Your task to perform on an android device: turn off priority inbox in the gmail app Image 0: 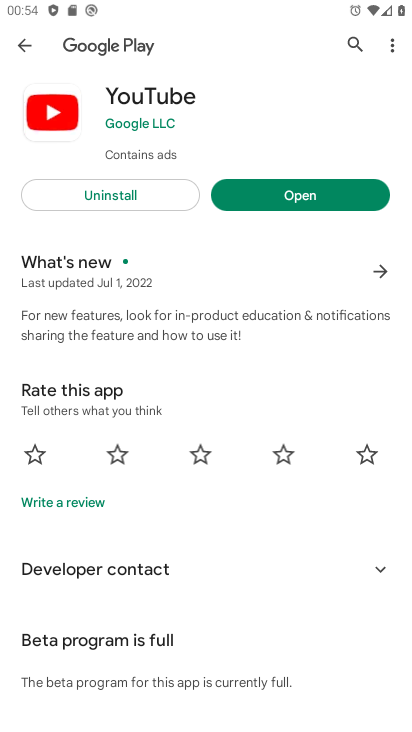
Step 0: press home button
Your task to perform on an android device: turn off priority inbox in the gmail app Image 1: 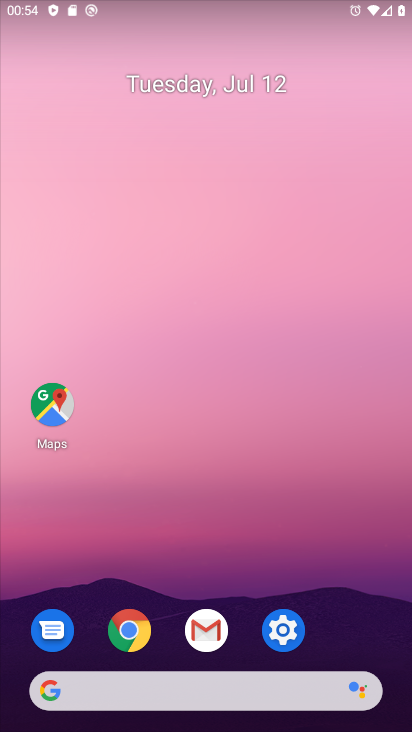
Step 1: click (208, 618)
Your task to perform on an android device: turn off priority inbox in the gmail app Image 2: 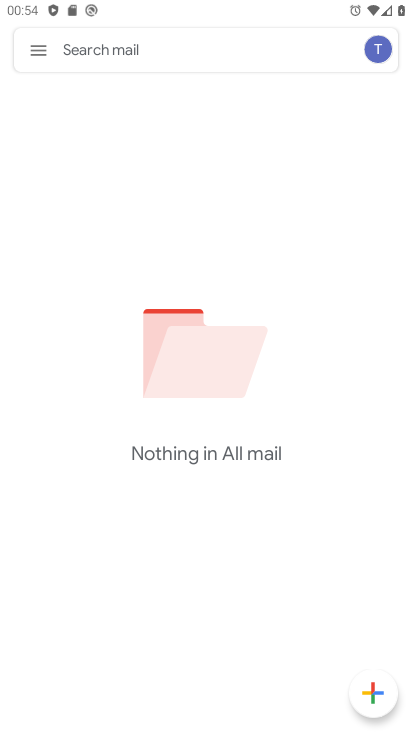
Step 2: click (38, 46)
Your task to perform on an android device: turn off priority inbox in the gmail app Image 3: 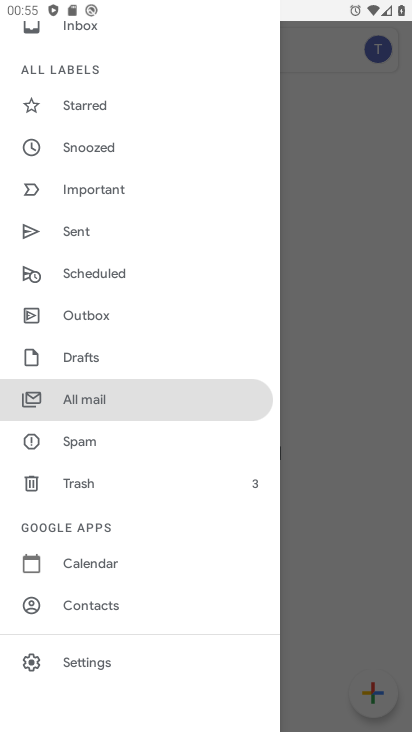
Step 3: click (87, 657)
Your task to perform on an android device: turn off priority inbox in the gmail app Image 4: 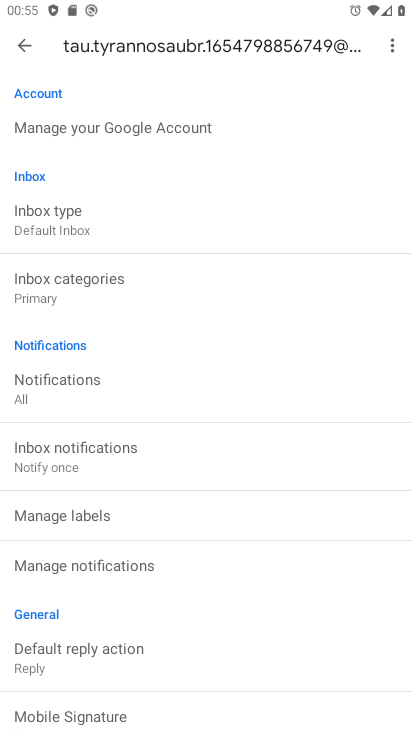
Step 4: click (122, 279)
Your task to perform on an android device: turn off priority inbox in the gmail app Image 5: 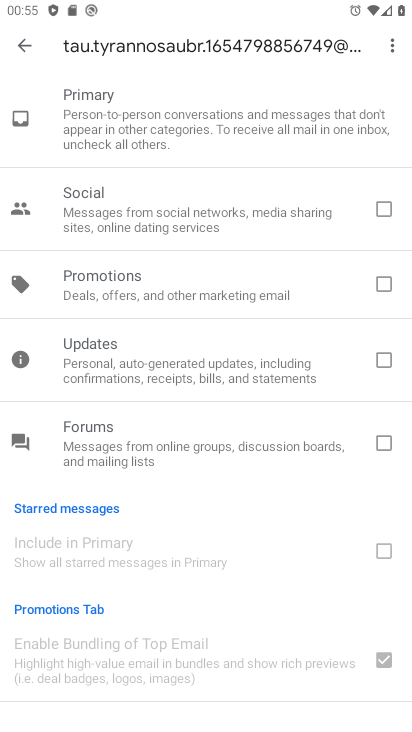
Step 5: click (34, 44)
Your task to perform on an android device: turn off priority inbox in the gmail app Image 6: 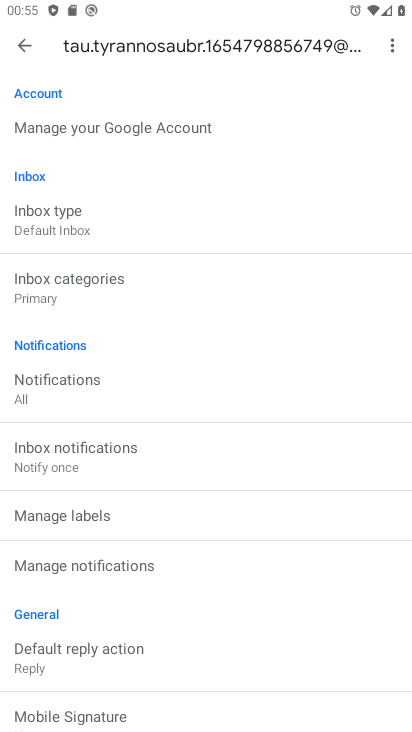
Step 6: click (96, 205)
Your task to perform on an android device: turn off priority inbox in the gmail app Image 7: 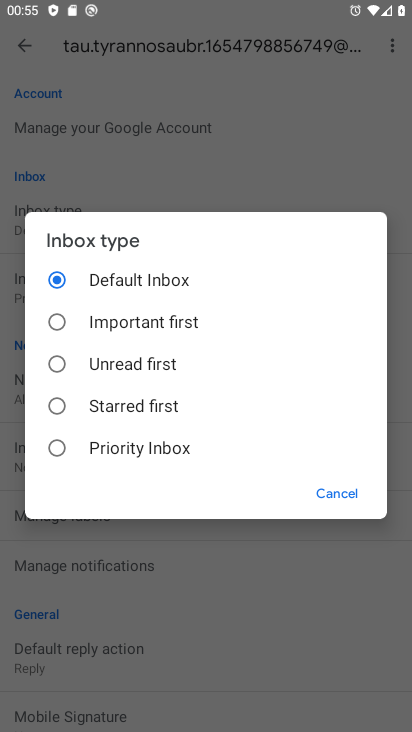
Step 7: task complete